Your task to perform on an android device: toggle translation in the chrome app Image 0: 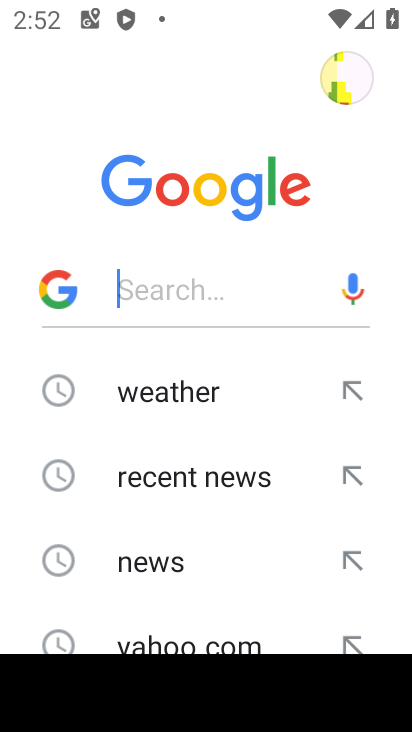
Step 0: press home button
Your task to perform on an android device: toggle translation in the chrome app Image 1: 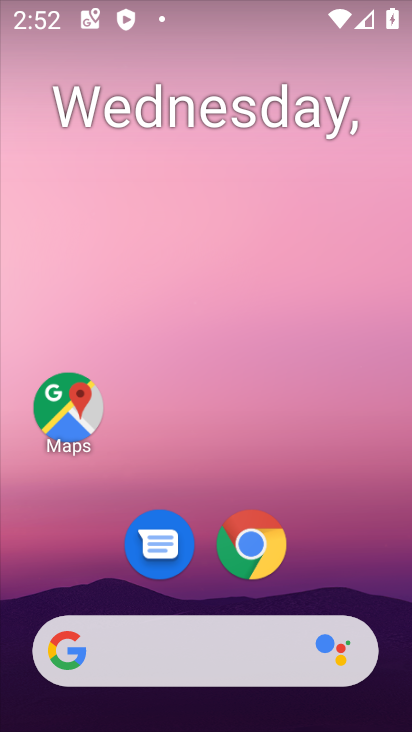
Step 1: drag from (354, 562) to (357, 68)
Your task to perform on an android device: toggle translation in the chrome app Image 2: 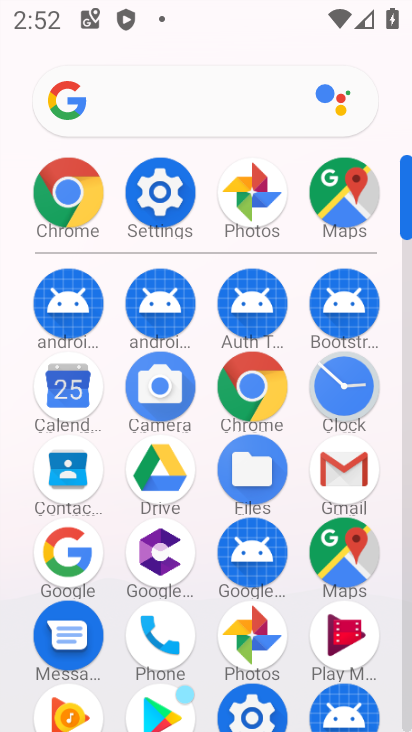
Step 2: click (264, 404)
Your task to perform on an android device: toggle translation in the chrome app Image 3: 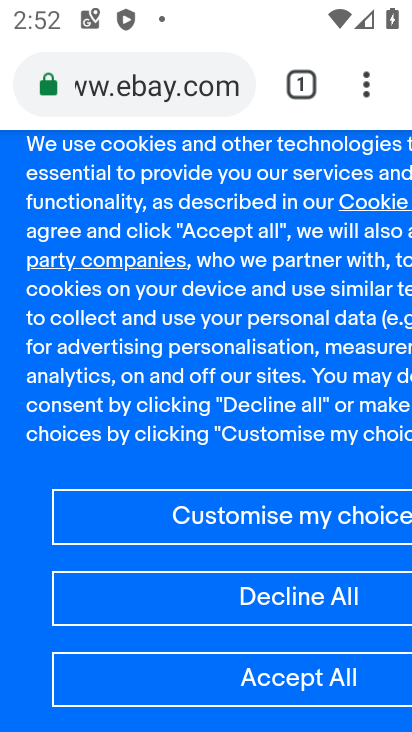
Step 3: drag from (379, 80) to (140, 601)
Your task to perform on an android device: toggle translation in the chrome app Image 4: 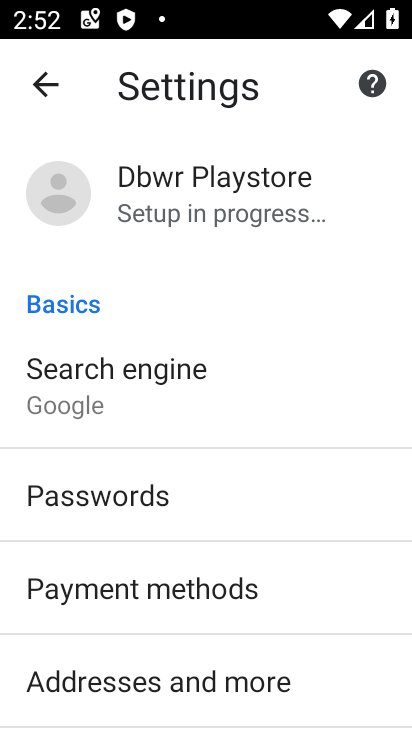
Step 4: drag from (350, 672) to (344, 273)
Your task to perform on an android device: toggle translation in the chrome app Image 5: 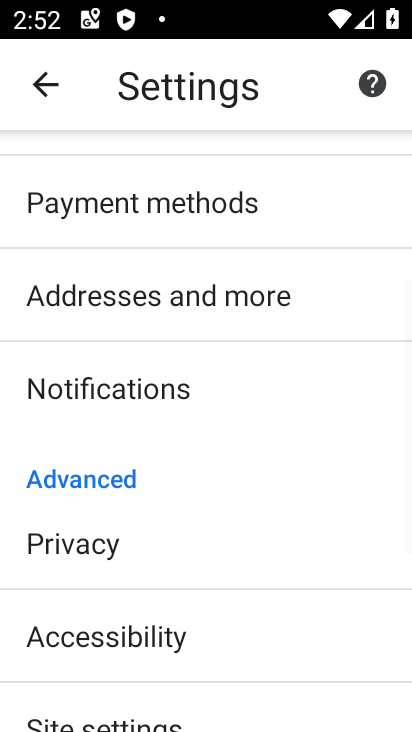
Step 5: drag from (315, 635) to (296, 275)
Your task to perform on an android device: toggle translation in the chrome app Image 6: 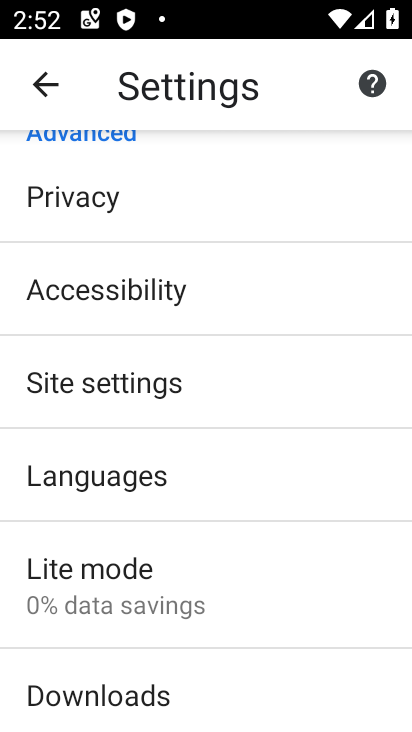
Step 6: drag from (288, 644) to (283, 262)
Your task to perform on an android device: toggle translation in the chrome app Image 7: 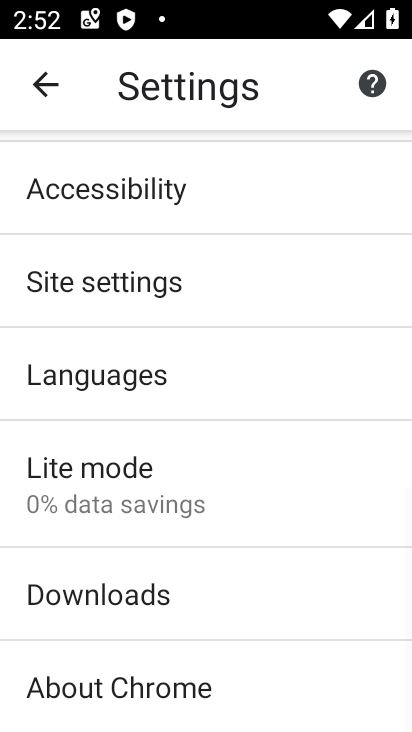
Step 7: click (159, 374)
Your task to perform on an android device: toggle translation in the chrome app Image 8: 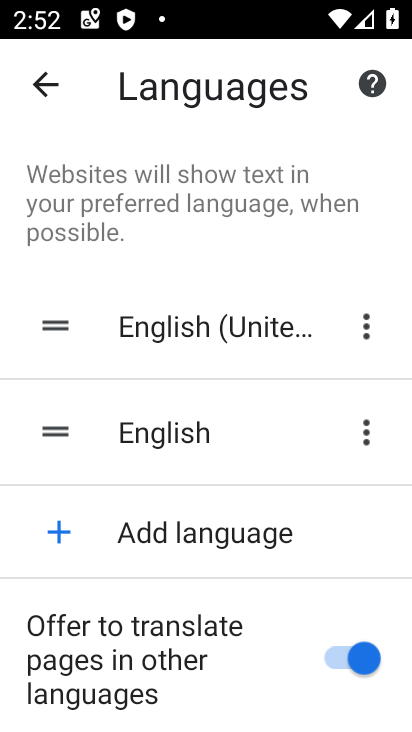
Step 8: click (340, 660)
Your task to perform on an android device: toggle translation in the chrome app Image 9: 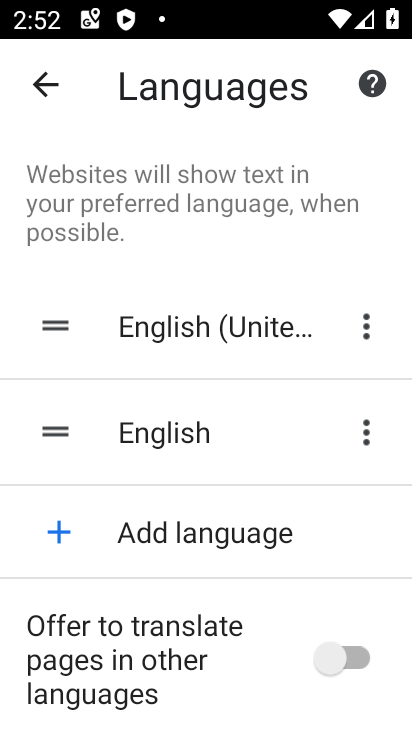
Step 9: task complete